Your task to perform on an android device: Open calendar and show me the fourth week of next month Image 0: 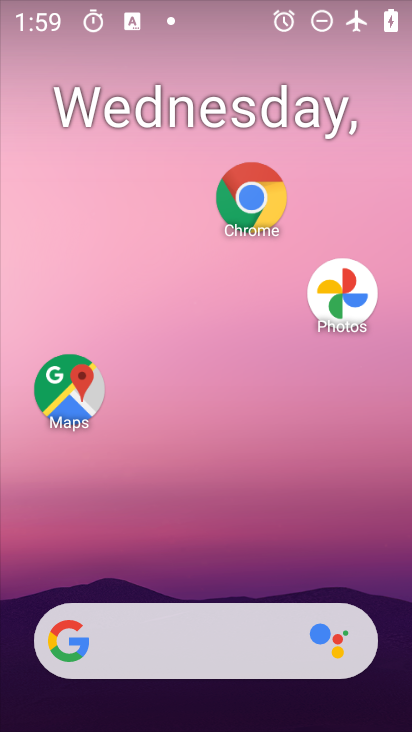
Step 0: drag from (182, 620) to (289, 118)
Your task to perform on an android device: Open calendar and show me the fourth week of next month Image 1: 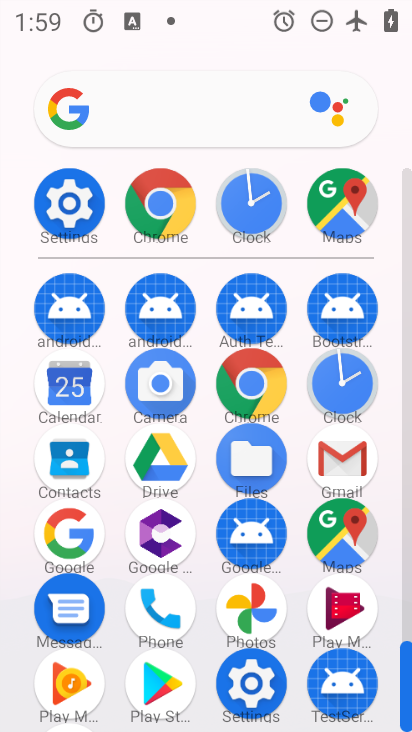
Step 1: drag from (188, 579) to (253, 280)
Your task to perform on an android device: Open calendar and show me the fourth week of next month Image 2: 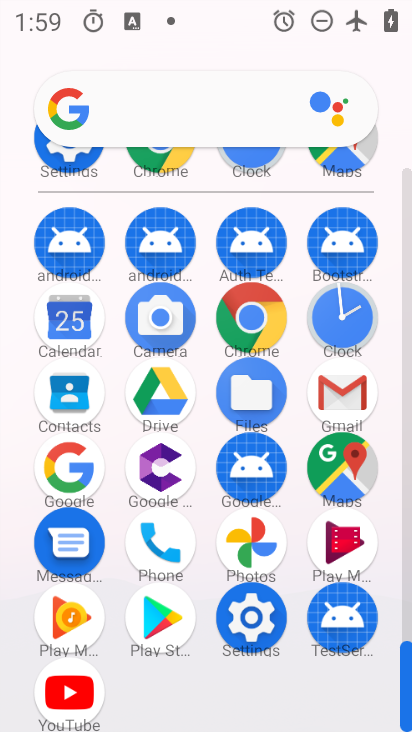
Step 2: click (76, 334)
Your task to perform on an android device: Open calendar and show me the fourth week of next month Image 3: 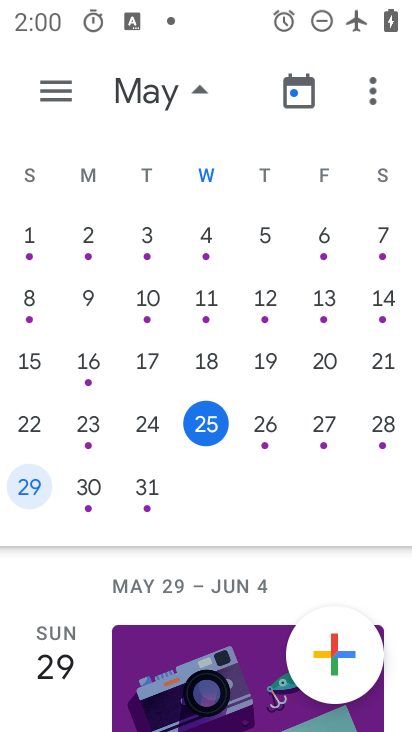
Step 3: drag from (308, 423) to (29, 435)
Your task to perform on an android device: Open calendar and show me the fourth week of next month Image 4: 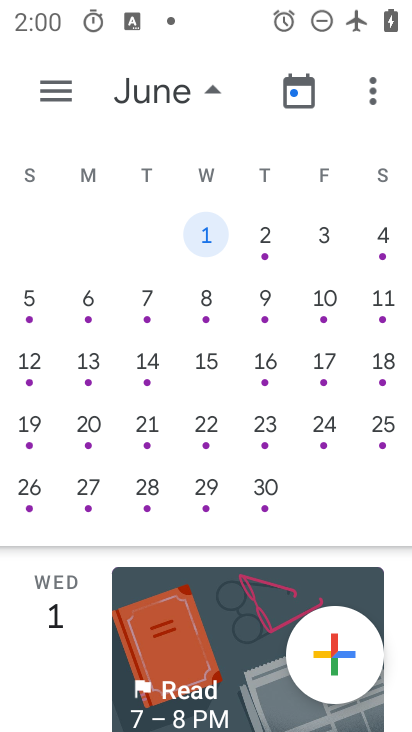
Step 4: click (40, 441)
Your task to perform on an android device: Open calendar and show me the fourth week of next month Image 5: 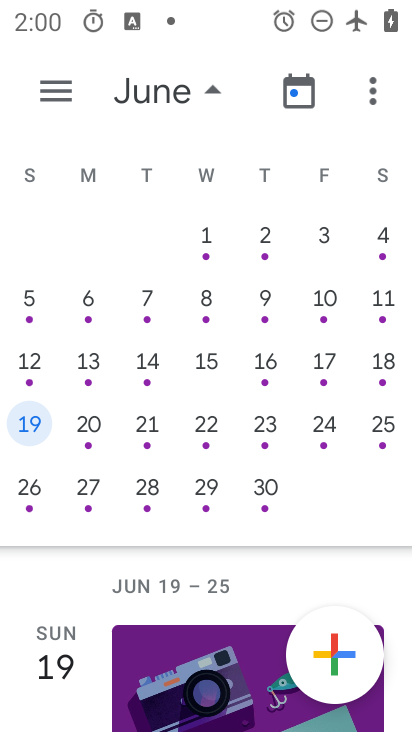
Step 5: task complete